Your task to perform on an android device: toggle location history Image 0: 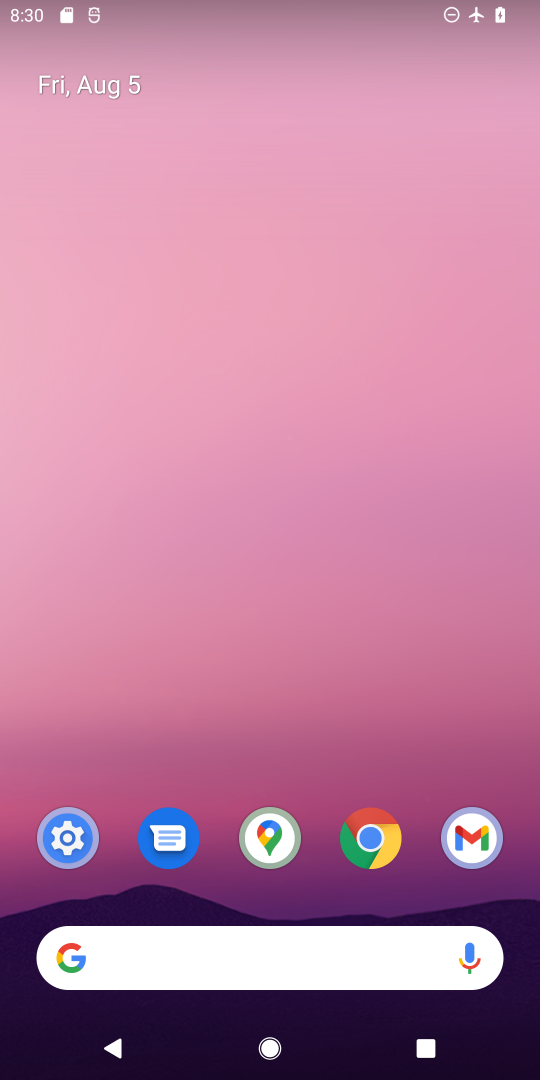
Step 0: drag from (283, 892) to (283, 387)
Your task to perform on an android device: toggle location history Image 1: 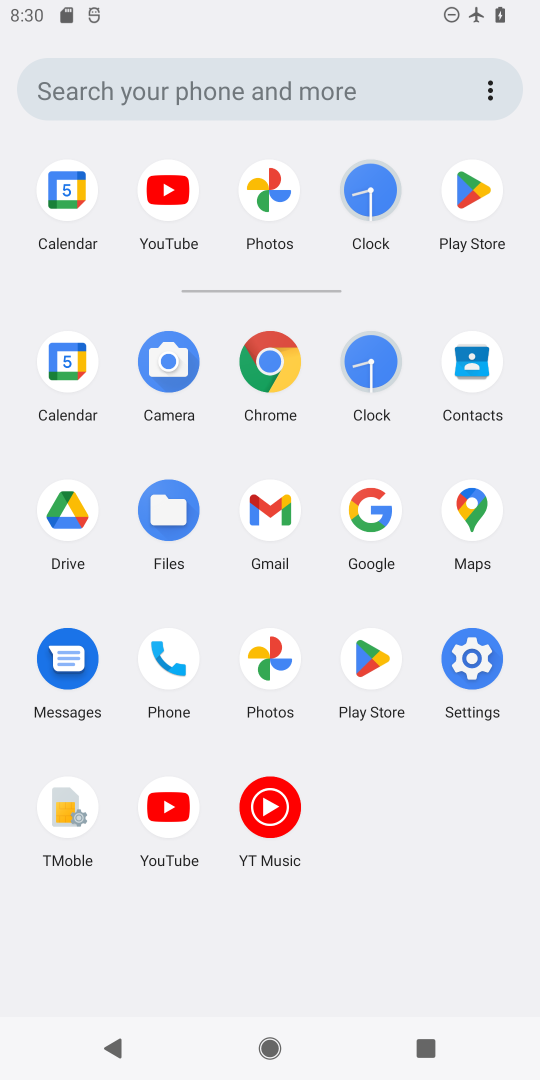
Step 1: click (459, 663)
Your task to perform on an android device: toggle location history Image 2: 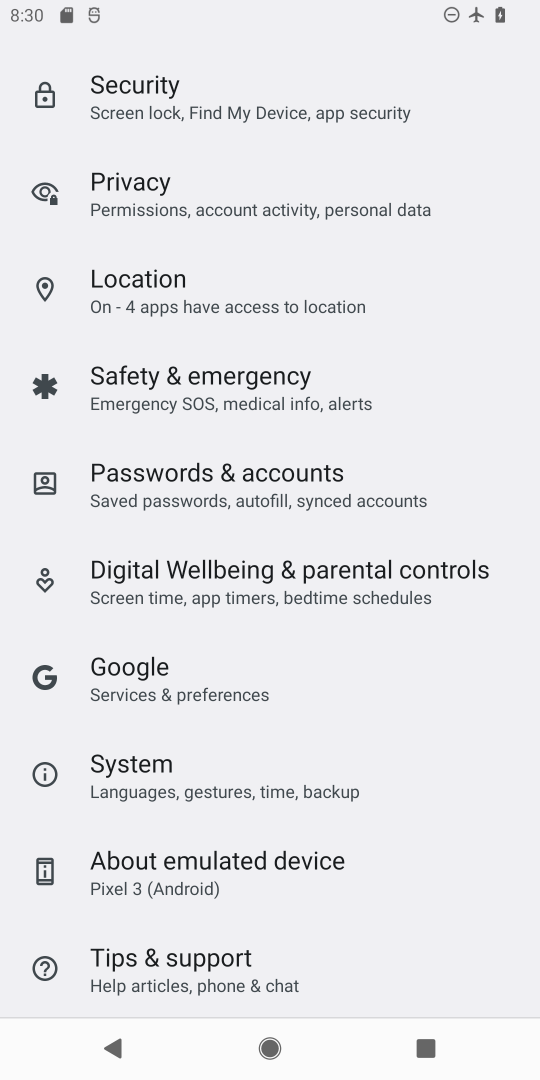
Step 2: drag from (207, 954) to (151, 461)
Your task to perform on an android device: toggle location history Image 3: 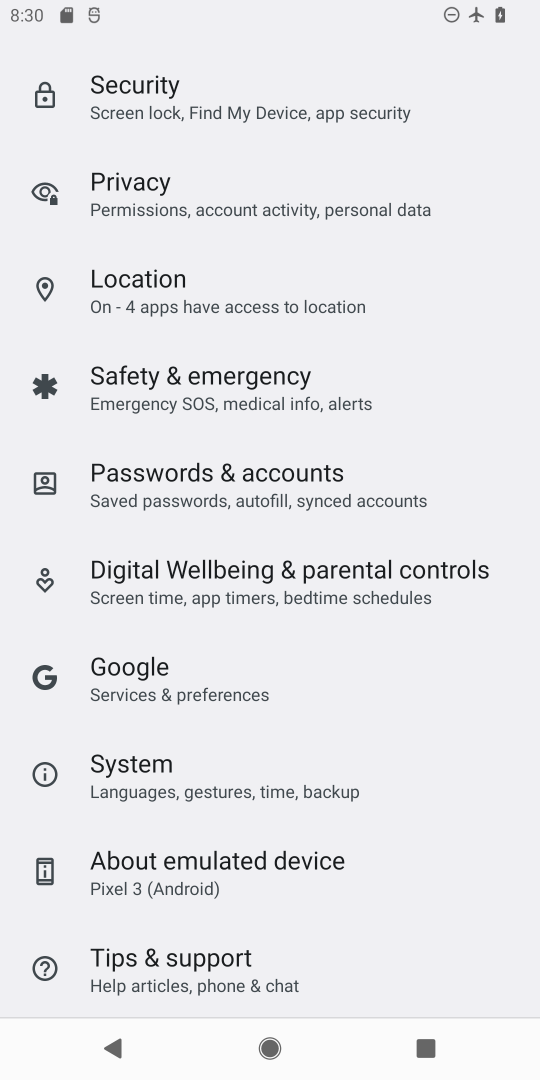
Step 3: drag from (213, 196) to (215, 680)
Your task to perform on an android device: toggle location history Image 4: 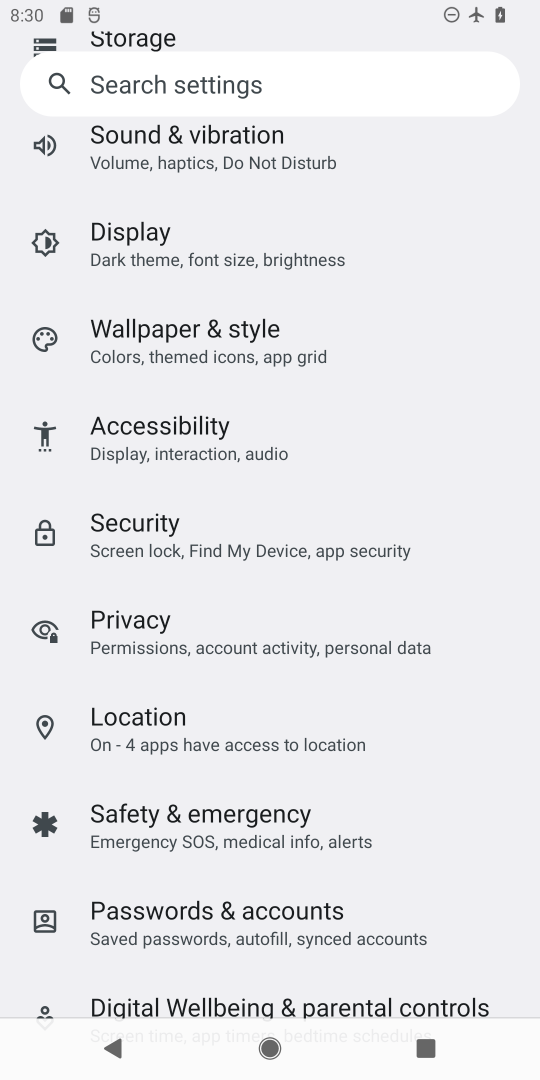
Step 4: click (166, 709)
Your task to perform on an android device: toggle location history Image 5: 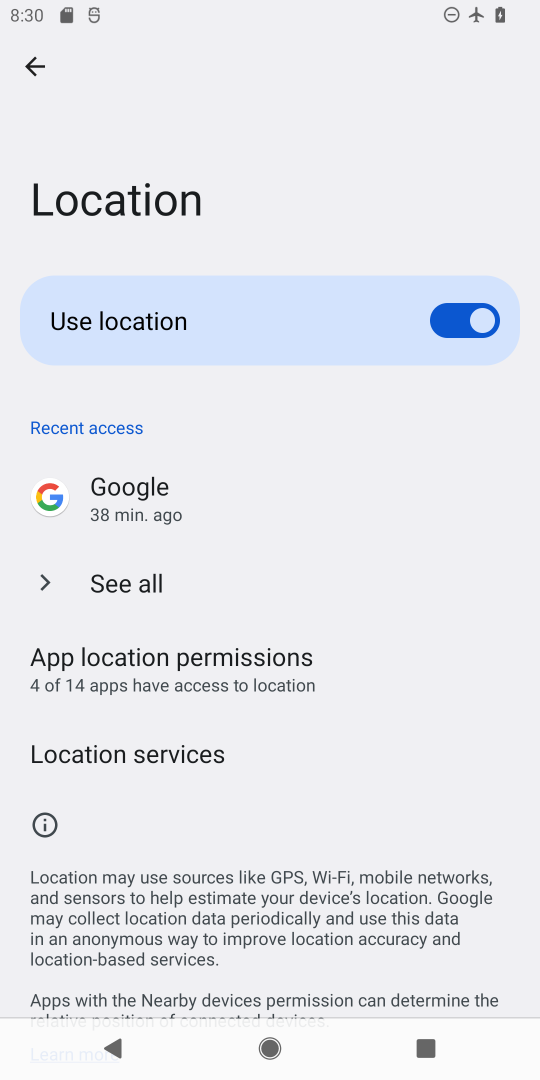
Step 5: click (432, 322)
Your task to perform on an android device: toggle location history Image 6: 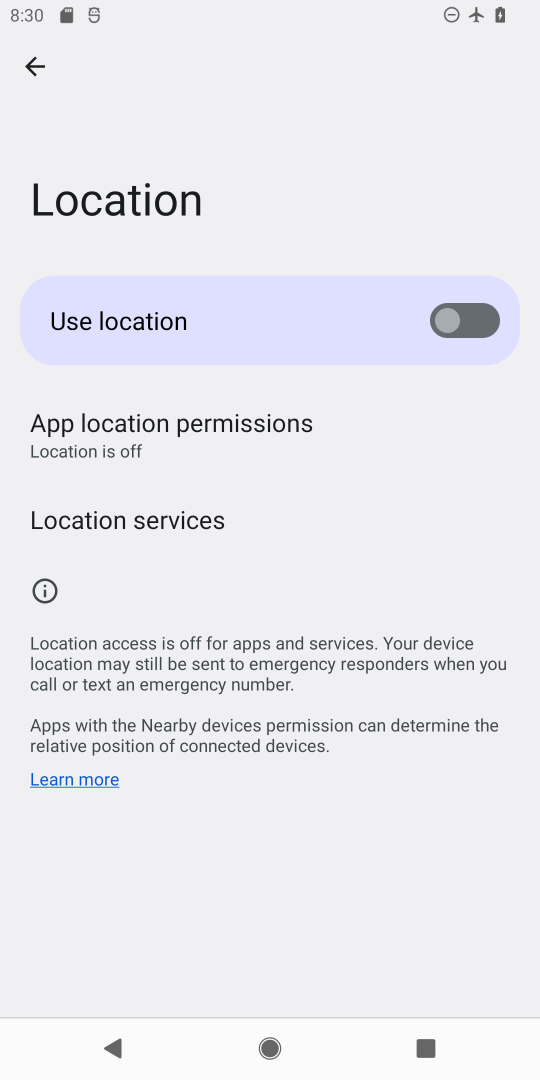
Step 6: click (176, 528)
Your task to perform on an android device: toggle location history Image 7: 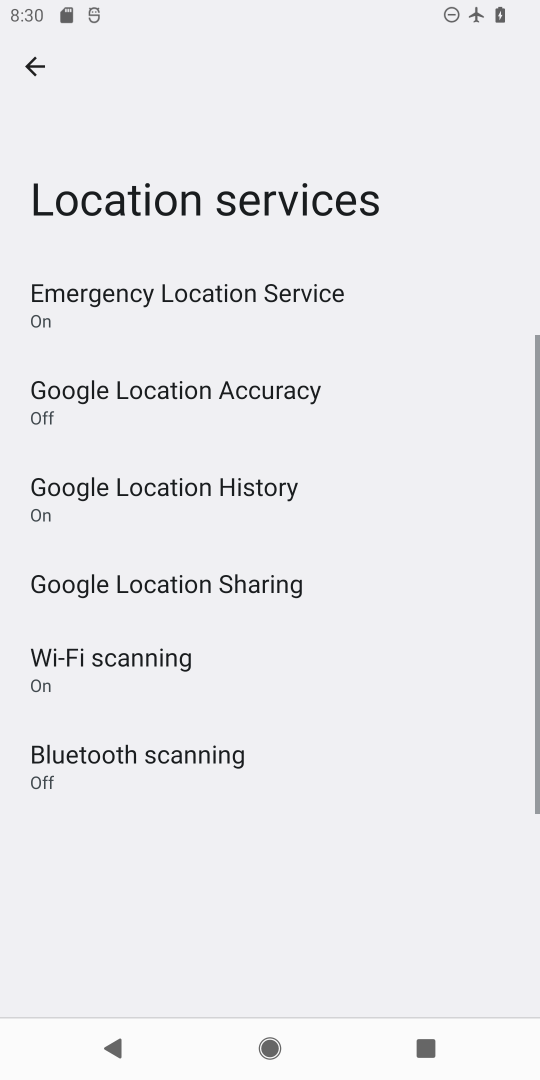
Step 7: click (162, 489)
Your task to perform on an android device: toggle location history Image 8: 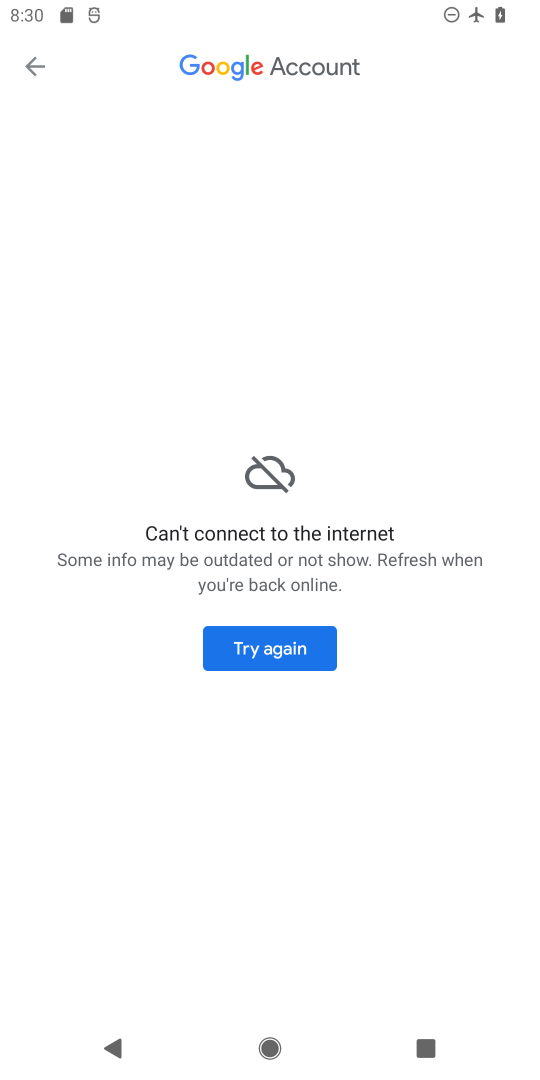
Step 8: click (318, 645)
Your task to perform on an android device: toggle location history Image 9: 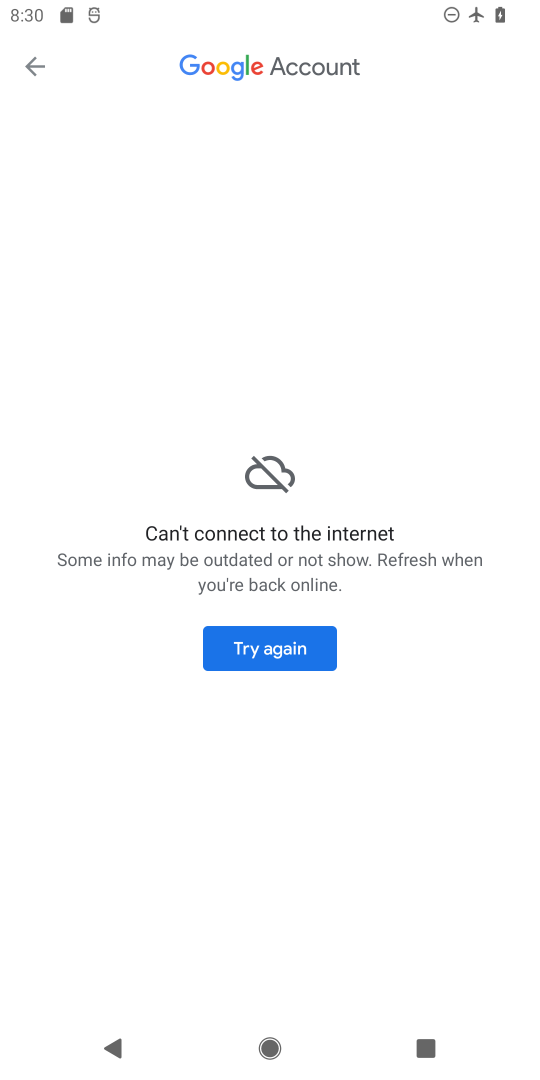
Step 9: click (244, 650)
Your task to perform on an android device: toggle location history Image 10: 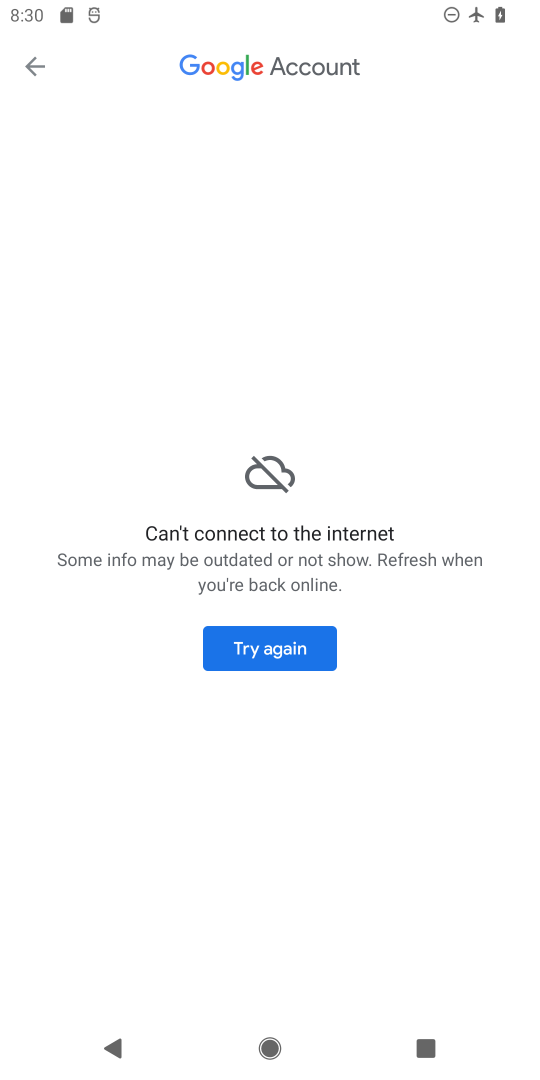
Step 10: task complete